Your task to perform on an android device: Check the weather Image 0: 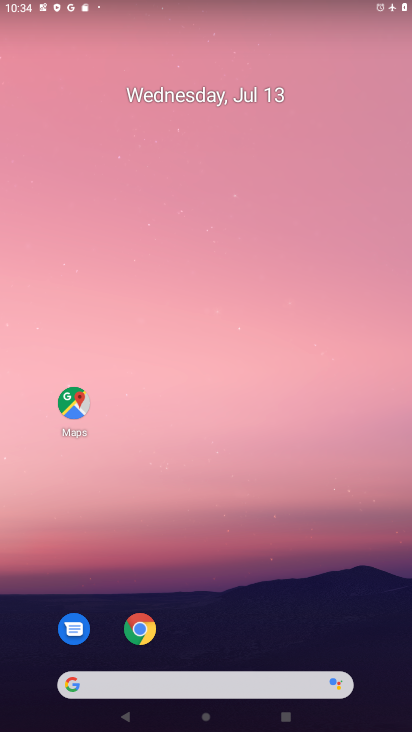
Step 0: drag from (319, 620) to (297, 256)
Your task to perform on an android device: Check the weather Image 1: 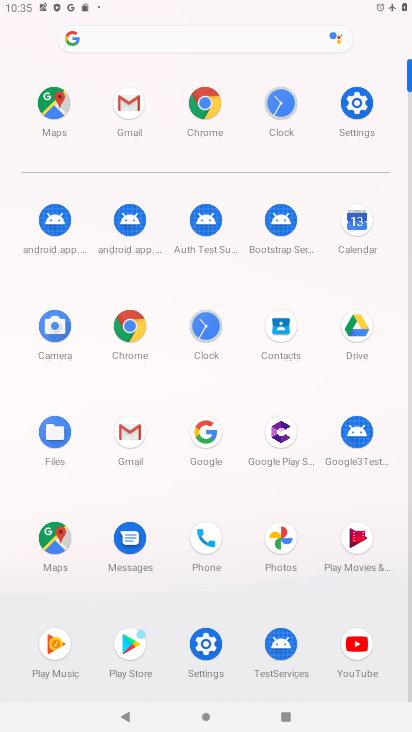
Step 1: click (348, 103)
Your task to perform on an android device: Check the weather Image 2: 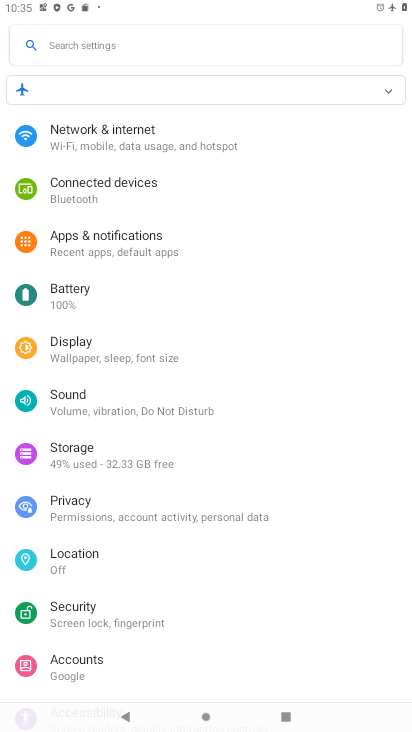
Step 2: click (243, 144)
Your task to perform on an android device: Check the weather Image 3: 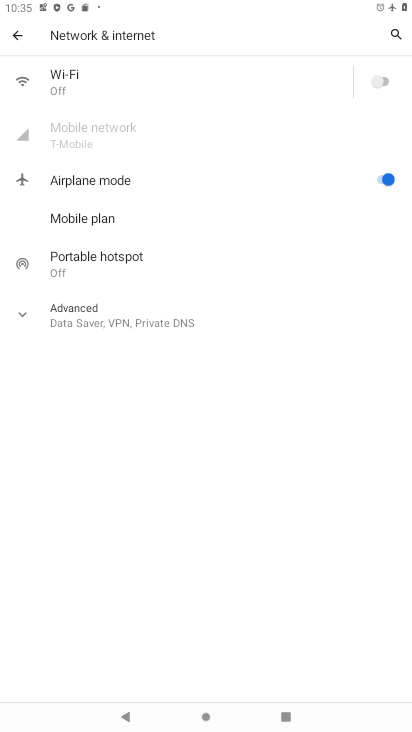
Step 3: click (378, 201)
Your task to perform on an android device: Check the weather Image 4: 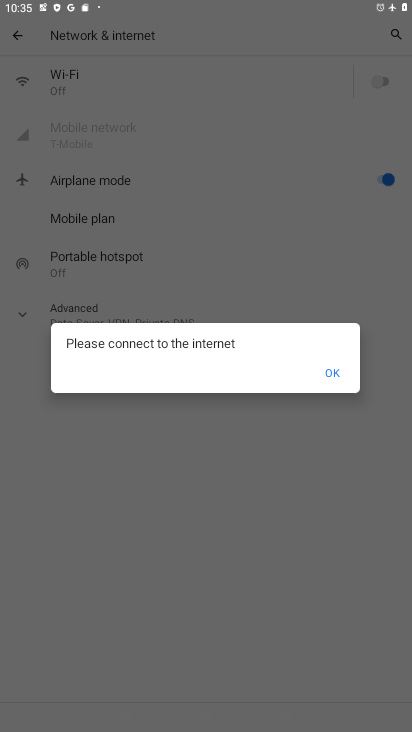
Step 4: click (325, 373)
Your task to perform on an android device: Check the weather Image 5: 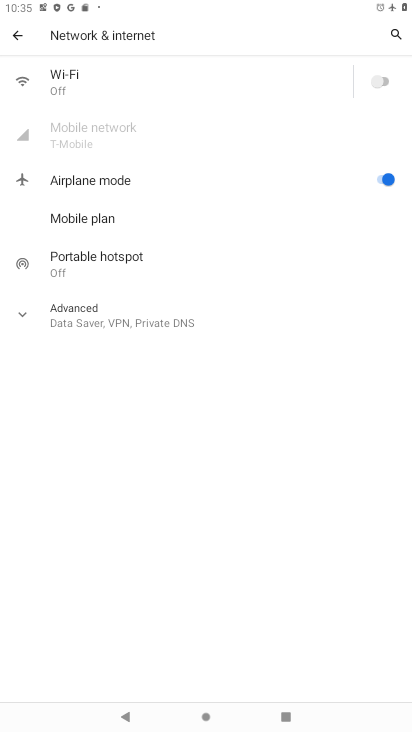
Step 5: click (384, 190)
Your task to perform on an android device: Check the weather Image 6: 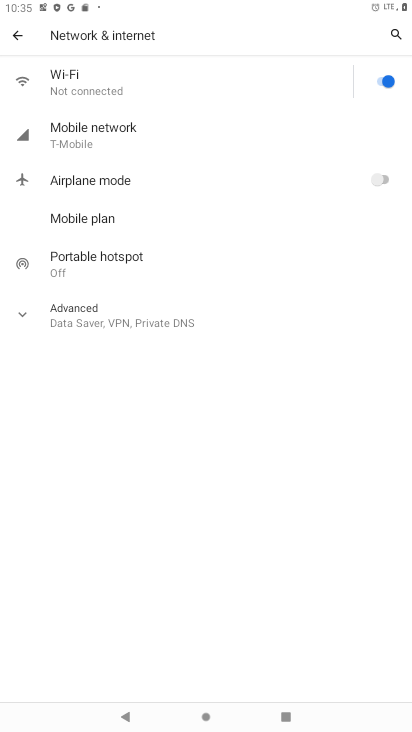
Step 6: press home button
Your task to perform on an android device: Check the weather Image 7: 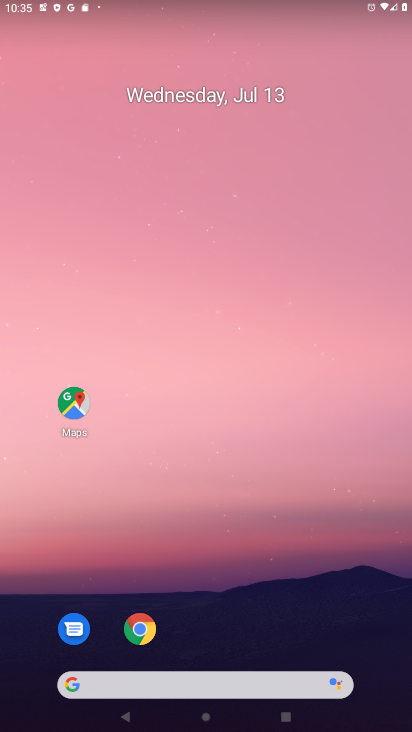
Step 7: click (230, 694)
Your task to perform on an android device: Check the weather Image 8: 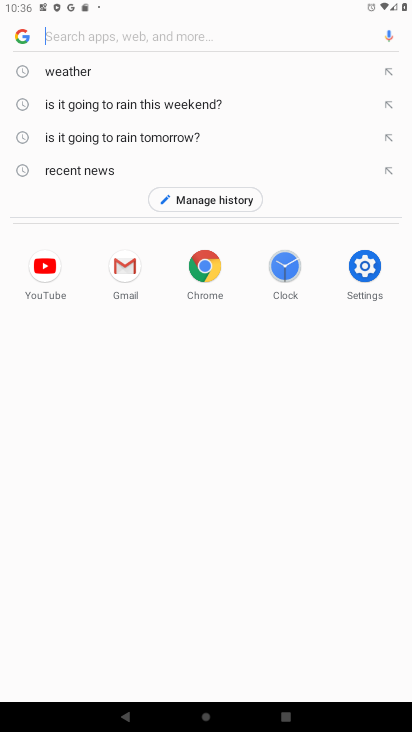
Step 8: click (147, 73)
Your task to perform on an android device: Check the weather Image 9: 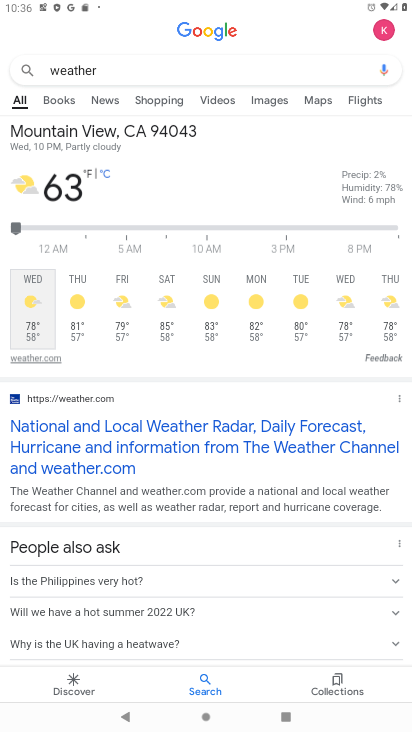
Step 9: task complete